Your task to perform on an android device: turn pop-ups on in chrome Image 0: 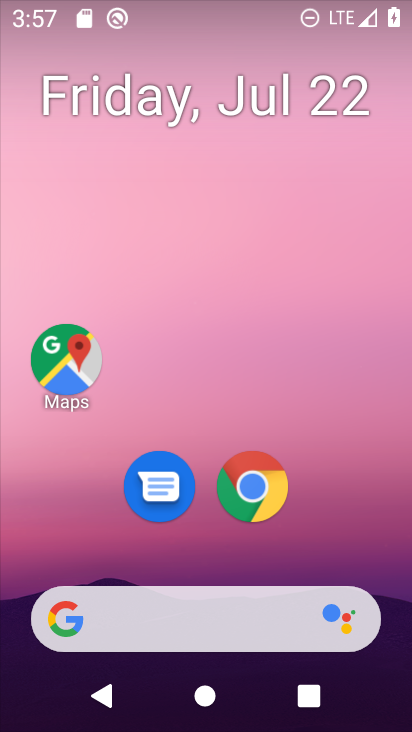
Step 0: click (255, 488)
Your task to perform on an android device: turn pop-ups on in chrome Image 1: 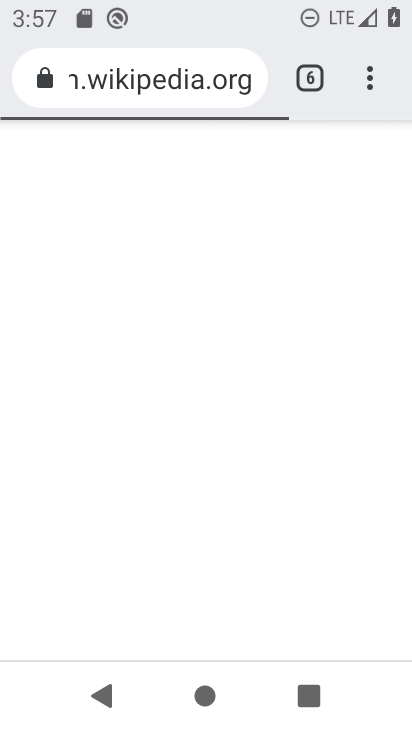
Step 1: drag from (368, 67) to (140, 549)
Your task to perform on an android device: turn pop-ups on in chrome Image 2: 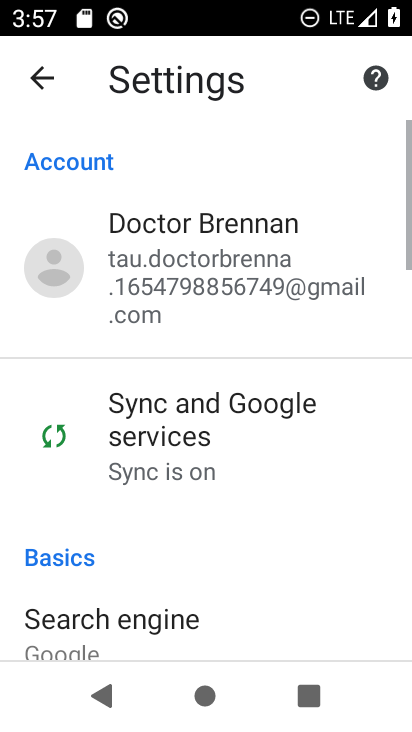
Step 2: drag from (163, 563) to (278, 118)
Your task to perform on an android device: turn pop-ups on in chrome Image 3: 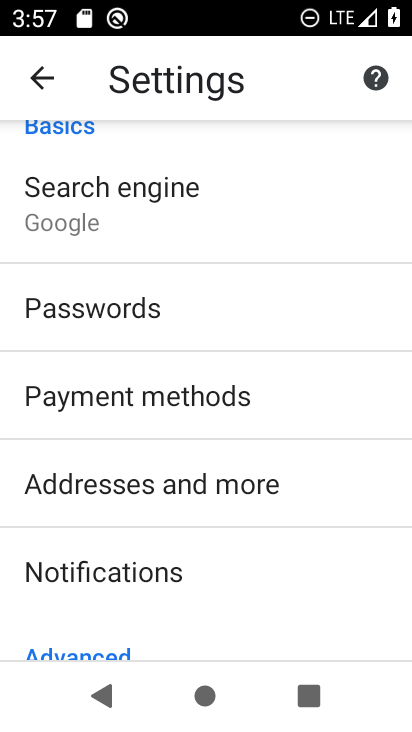
Step 3: drag from (171, 574) to (273, 96)
Your task to perform on an android device: turn pop-ups on in chrome Image 4: 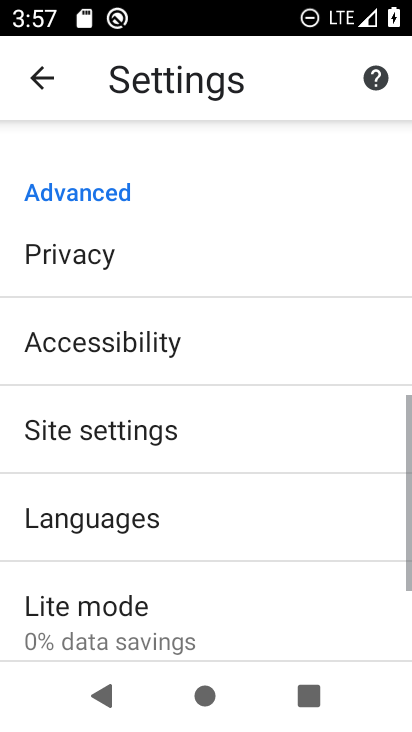
Step 4: click (85, 418)
Your task to perform on an android device: turn pop-ups on in chrome Image 5: 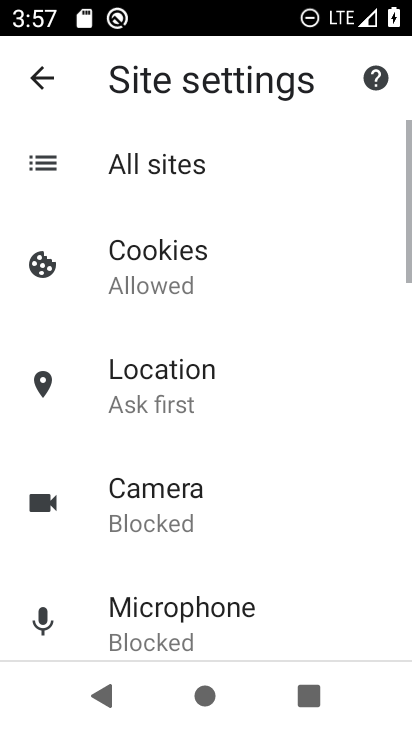
Step 5: drag from (203, 605) to (279, 35)
Your task to perform on an android device: turn pop-ups on in chrome Image 6: 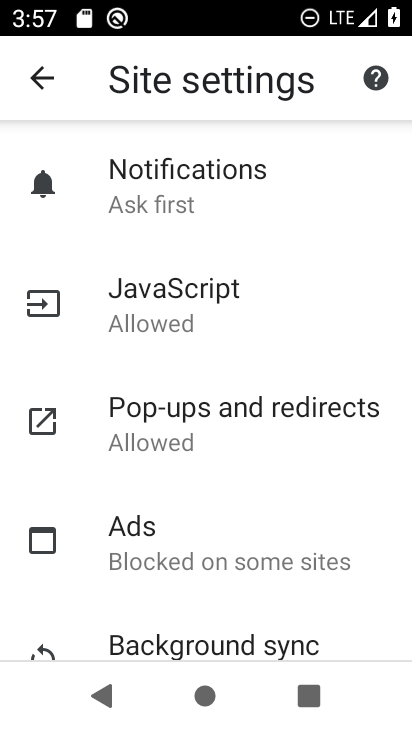
Step 6: click (142, 426)
Your task to perform on an android device: turn pop-ups on in chrome Image 7: 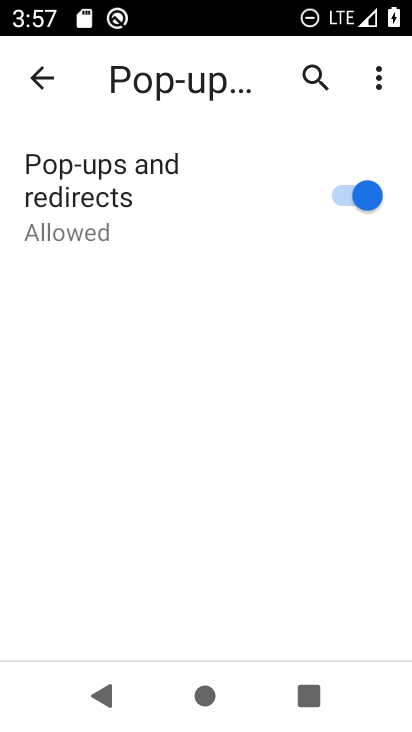
Step 7: task complete